Your task to perform on an android device: show emergency info Image 0: 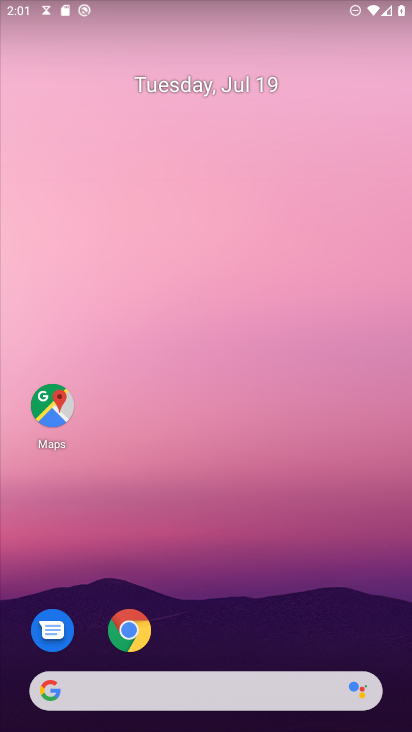
Step 0: press home button
Your task to perform on an android device: show emergency info Image 1: 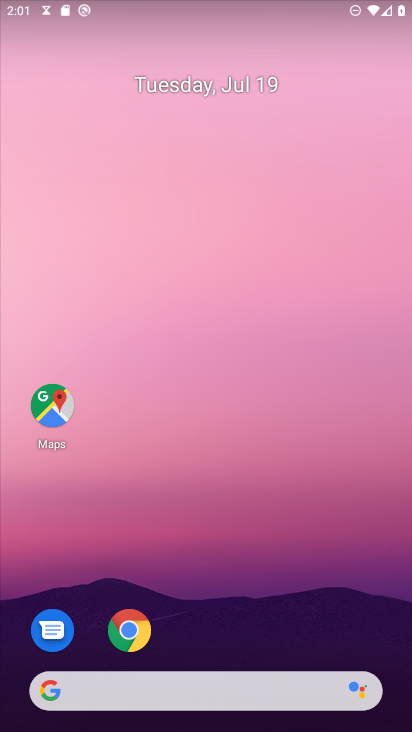
Step 1: drag from (168, 707) to (245, 160)
Your task to perform on an android device: show emergency info Image 2: 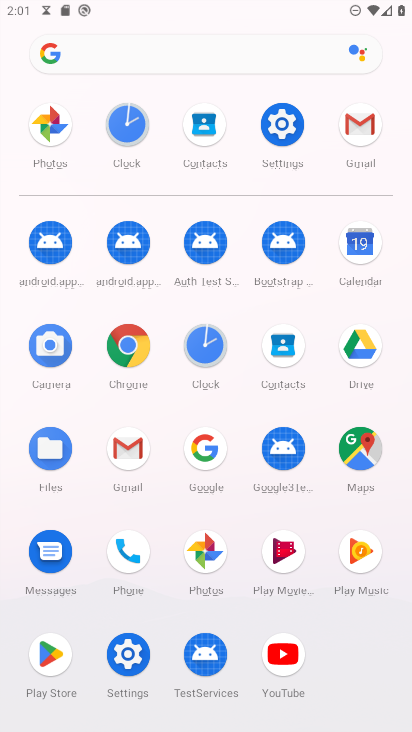
Step 2: click (281, 126)
Your task to perform on an android device: show emergency info Image 3: 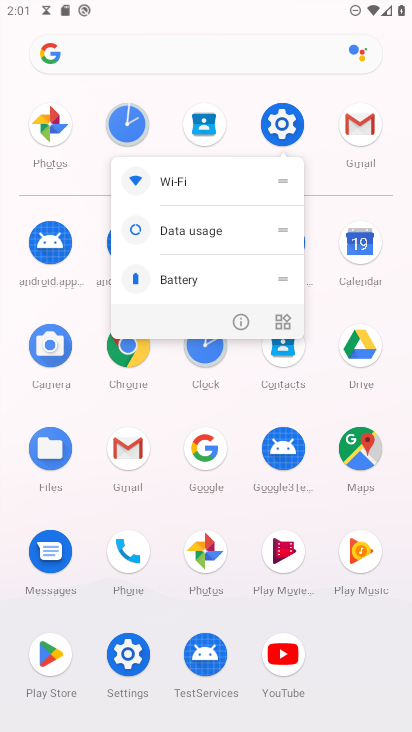
Step 3: click (283, 122)
Your task to perform on an android device: show emergency info Image 4: 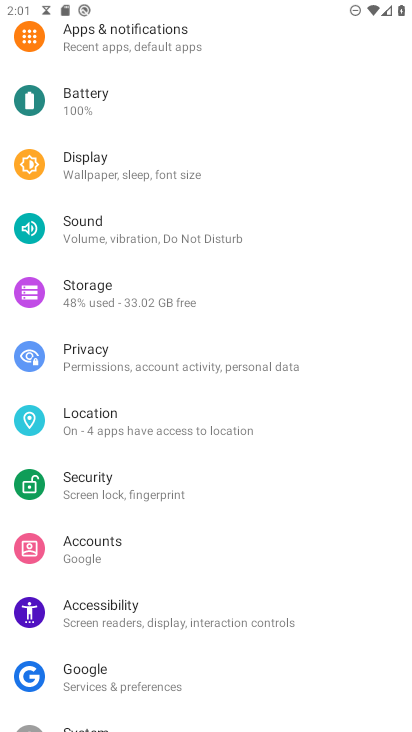
Step 4: drag from (198, 571) to (323, 12)
Your task to perform on an android device: show emergency info Image 5: 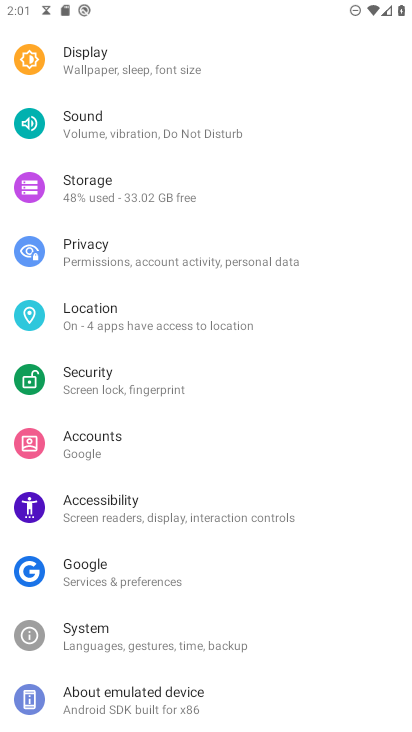
Step 5: click (173, 709)
Your task to perform on an android device: show emergency info Image 6: 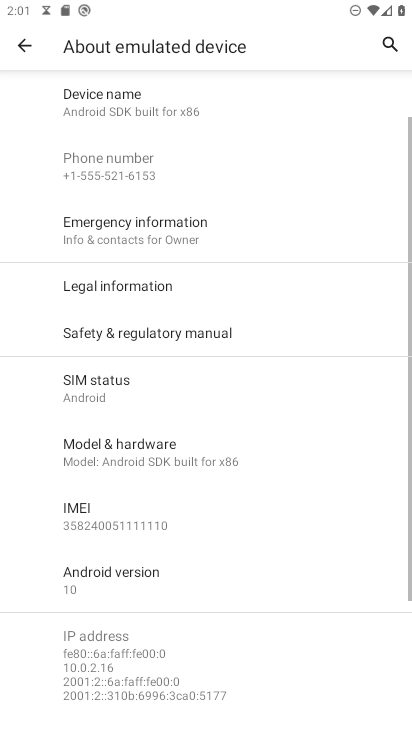
Step 6: click (167, 234)
Your task to perform on an android device: show emergency info Image 7: 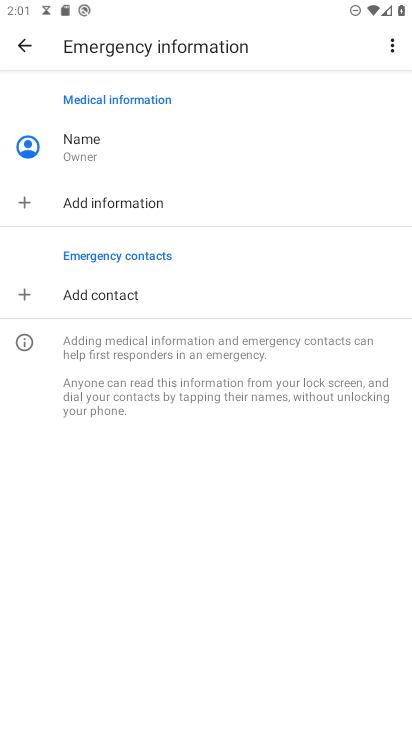
Step 7: task complete